Your task to perform on an android device: clear history in the chrome app Image 0: 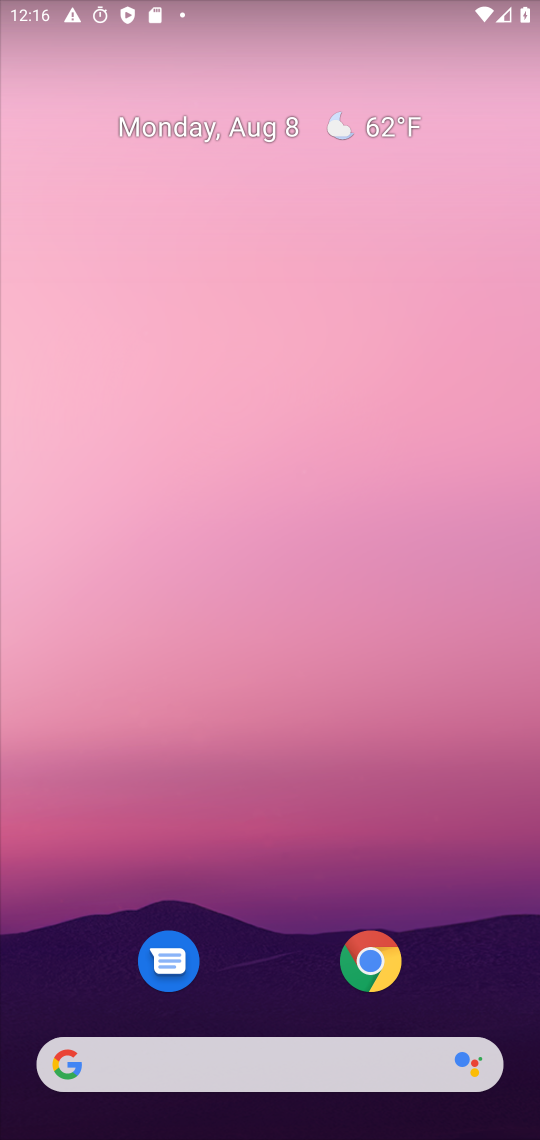
Step 0: drag from (163, 1051) to (167, 20)
Your task to perform on an android device: clear history in the chrome app Image 1: 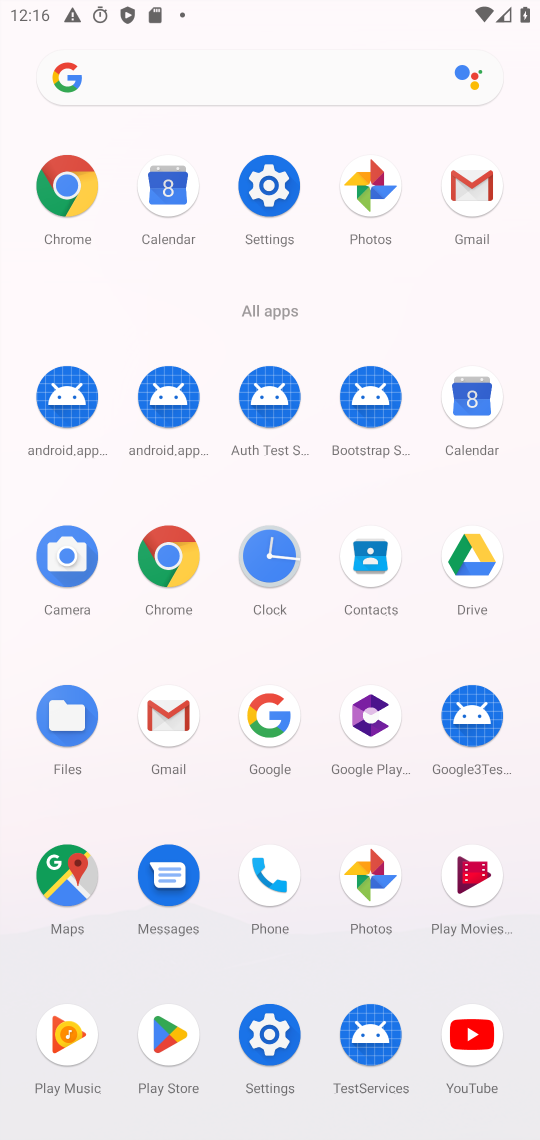
Step 1: click (180, 553)
Your task to perform on an android device: clear history in the chrome app Image 2: 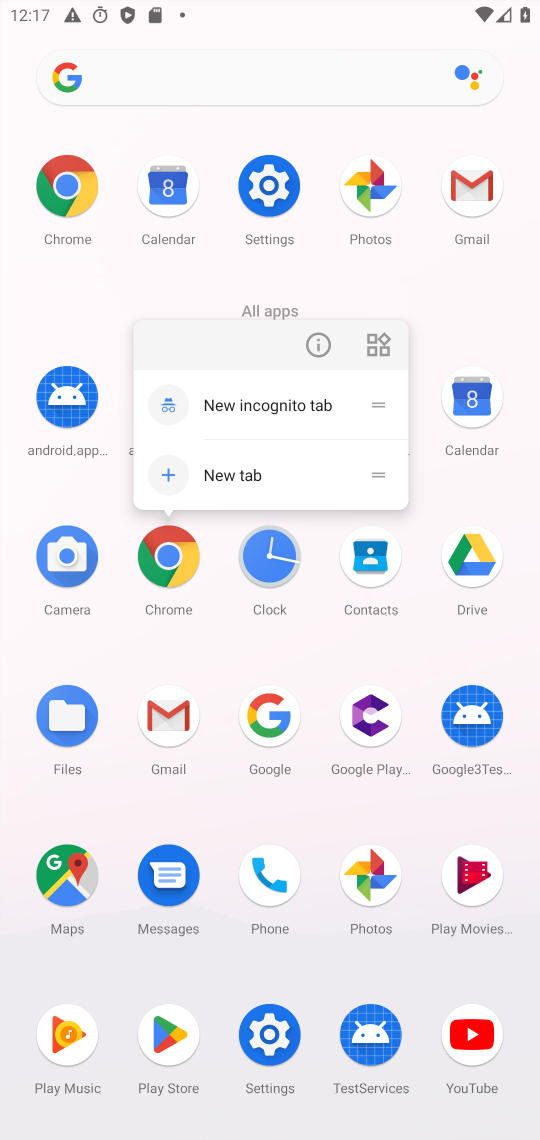
Step 2: click (180, 553)
Your task to perform on an android device: clear history in the chrome app Image 3: 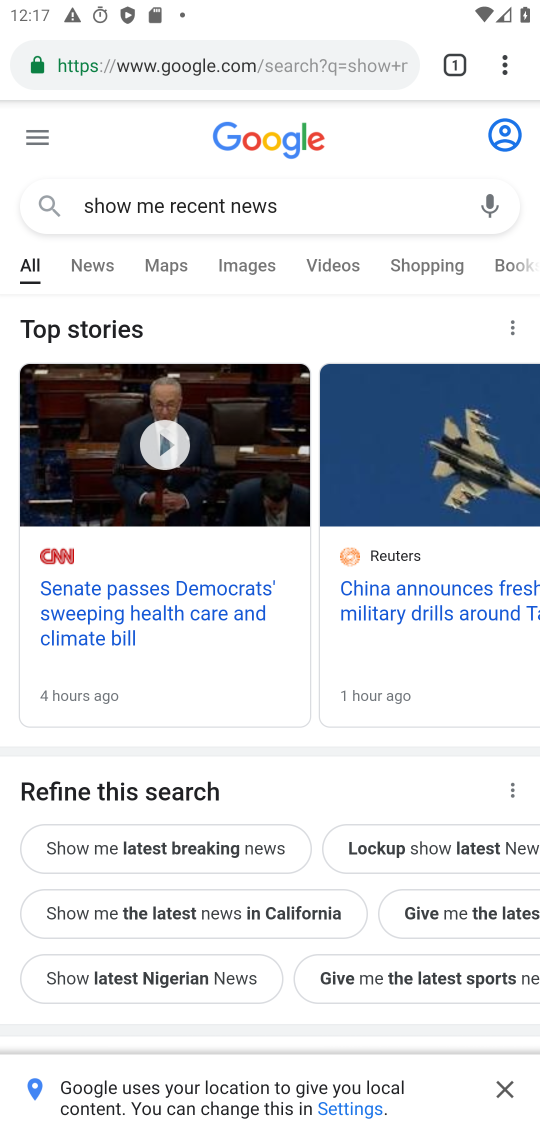
Step 3: click (180, 553)
Your task to perform on an android device: clear history in the chrome app Image 4: 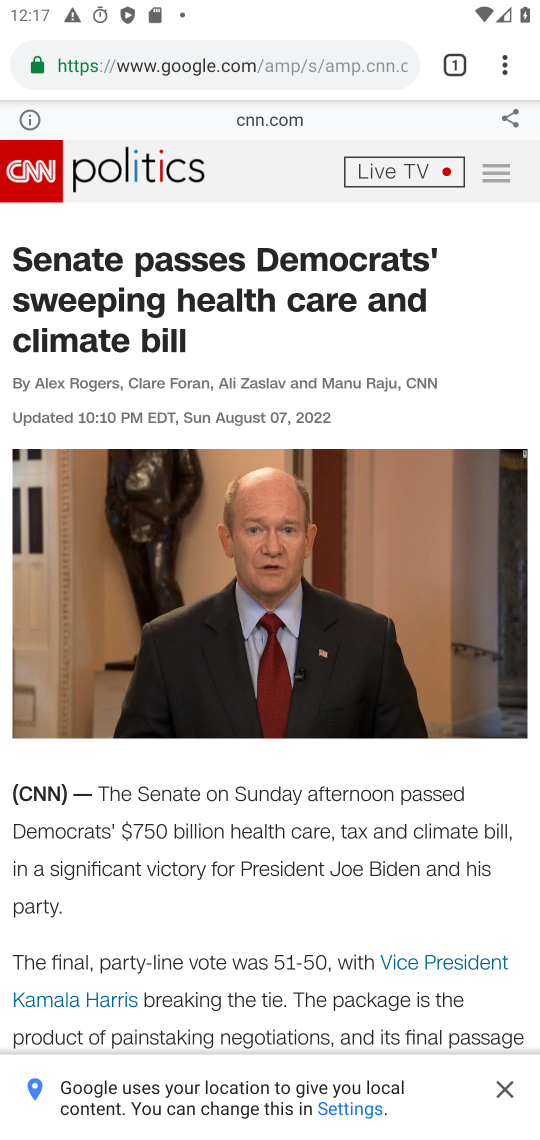
Step 4: click (505, 63)
Your task to perform on an android device: clear history in the chrome app Image 5: 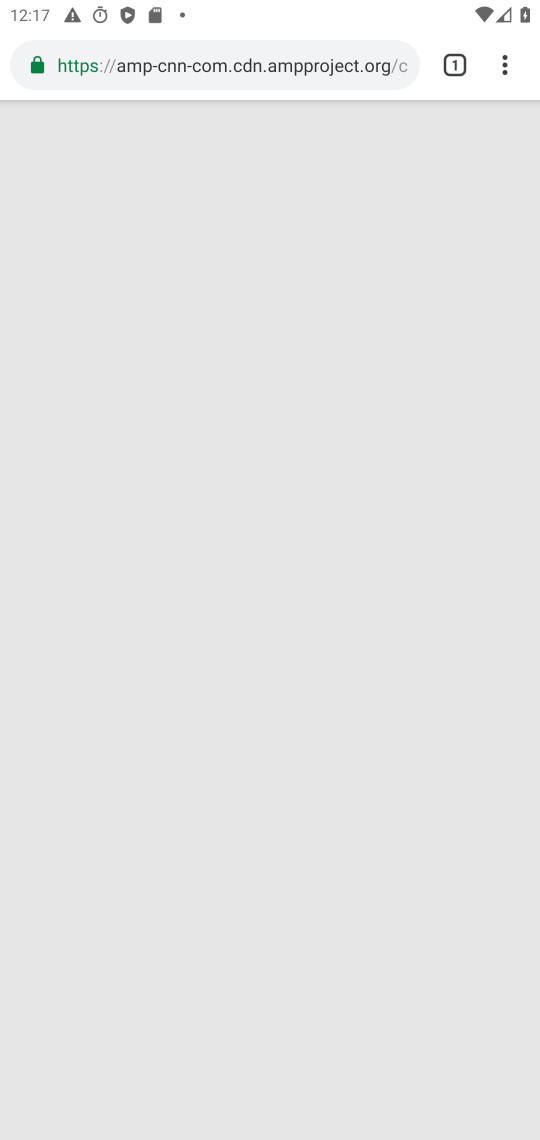
Step 5: click (505, 64)
Your task to perform on an android device: clear history in the chrome app Image 6: 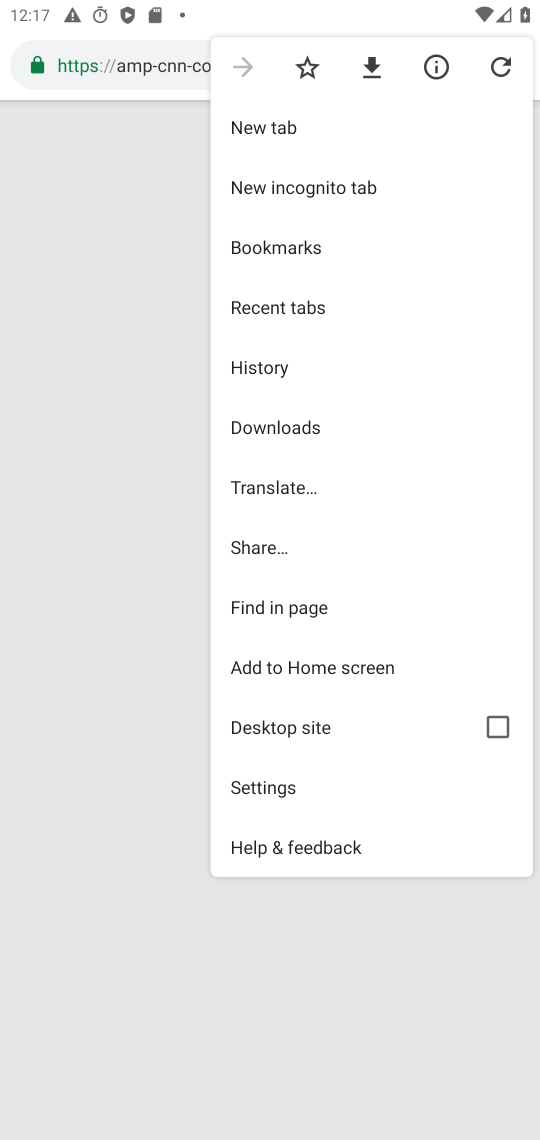
Step 6: click (276, 355)
Your task to perform on an android device: clear history in the chrome app Image 7: 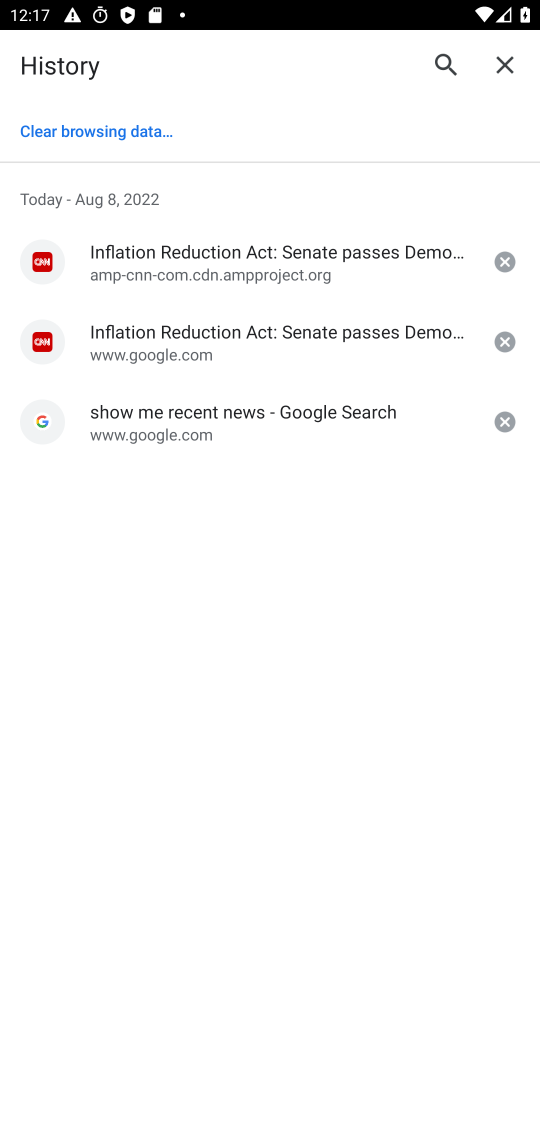
Step 7: click (117, 125)
Your task to perform on an android device: clear history in the chrome app Image 8: 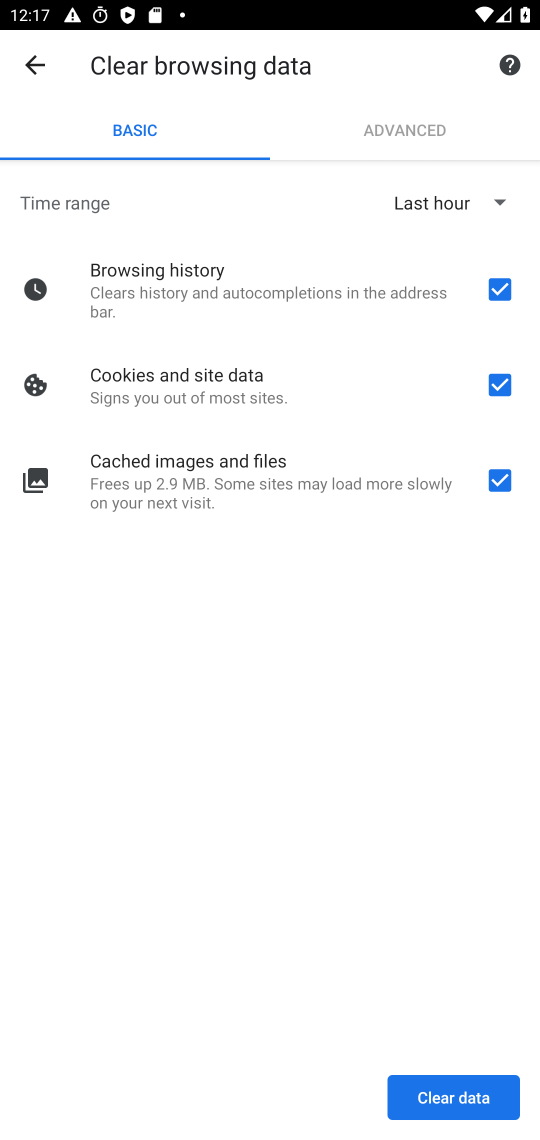
Step 8: click (435, 1094)
Your task to perform on an android device: clear history in the chrome app Image 9: 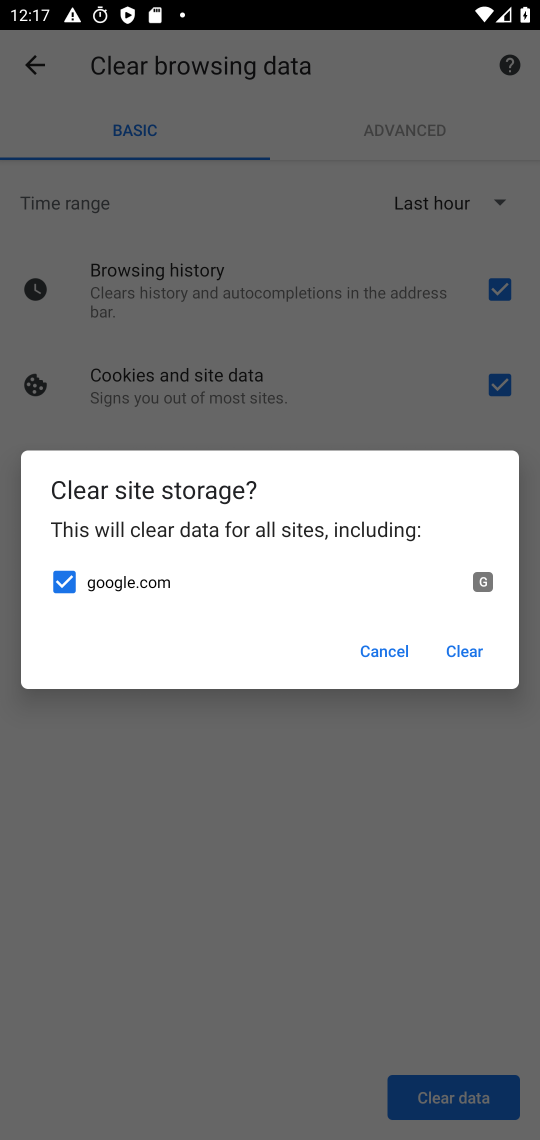
Step 9: click (460, 648)
Your task to perform on an android device: clear history in the chrome app Image 10: 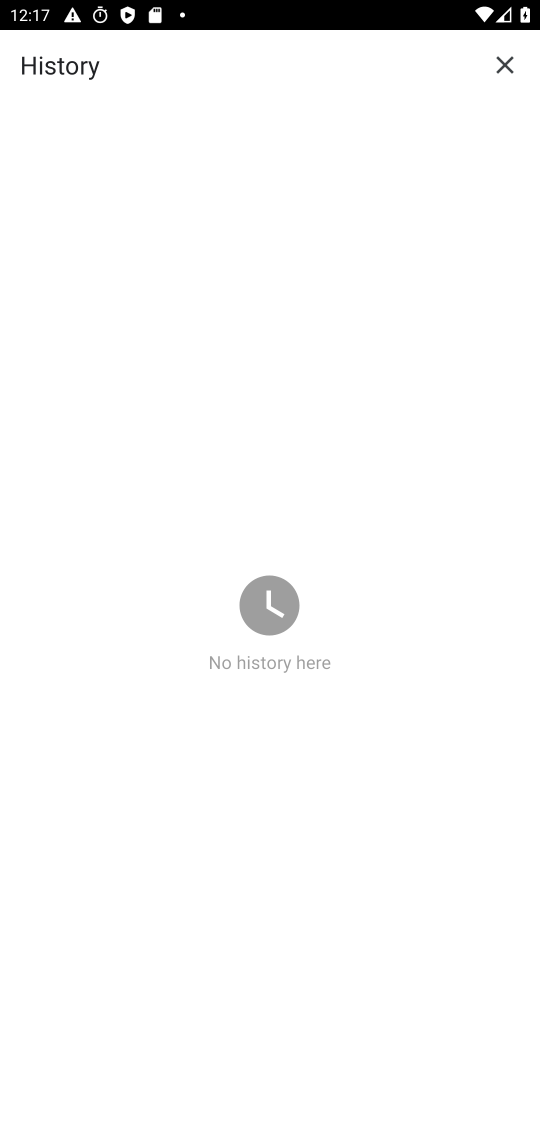
Step 10: task complete